Your task to perform on an android device: Open the calendar app, open the side menu, and click the "Day" option Image 0: 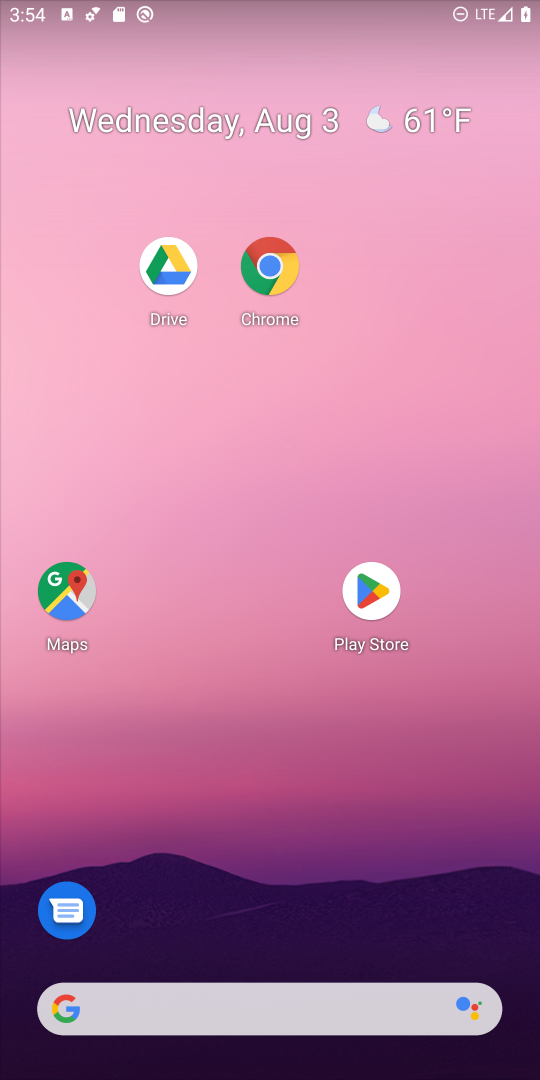
Step 0: drag from (246, 576) to (328, 112)
Your task to perform on an android device: Open the calendar app, open the side menu, and click the "Day" option Image 1: 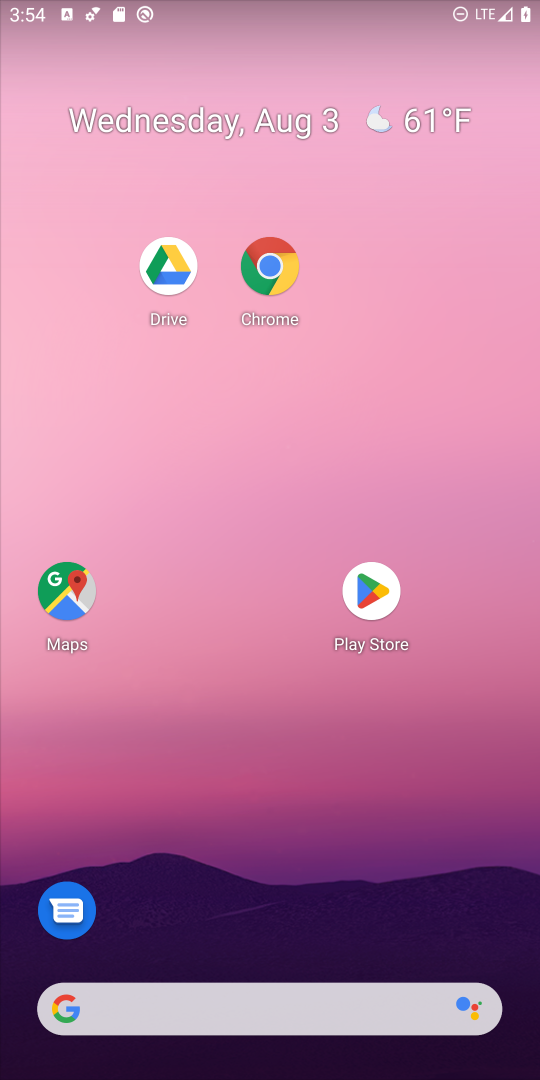
Step 1: drag from (268, 1015) to (405, 5)
Your task to perform on an android device: Open the calendar app, open the side menu, and click the "Day" option Image 2: 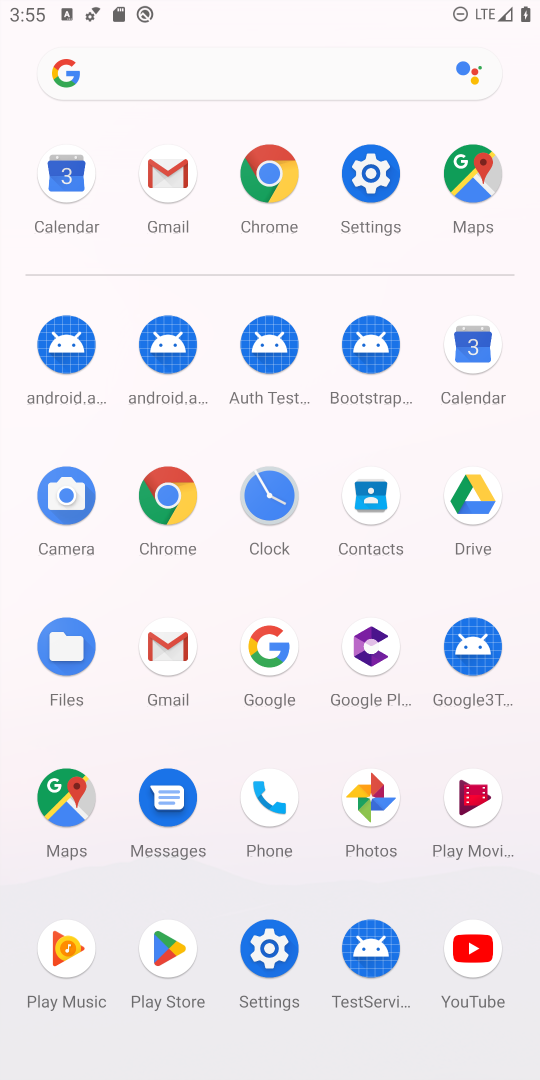
Step 2: click (476, 343)
Your task to perform on an android device: Open the calendar app, open the side menu, and click the "Day" option Image 3: 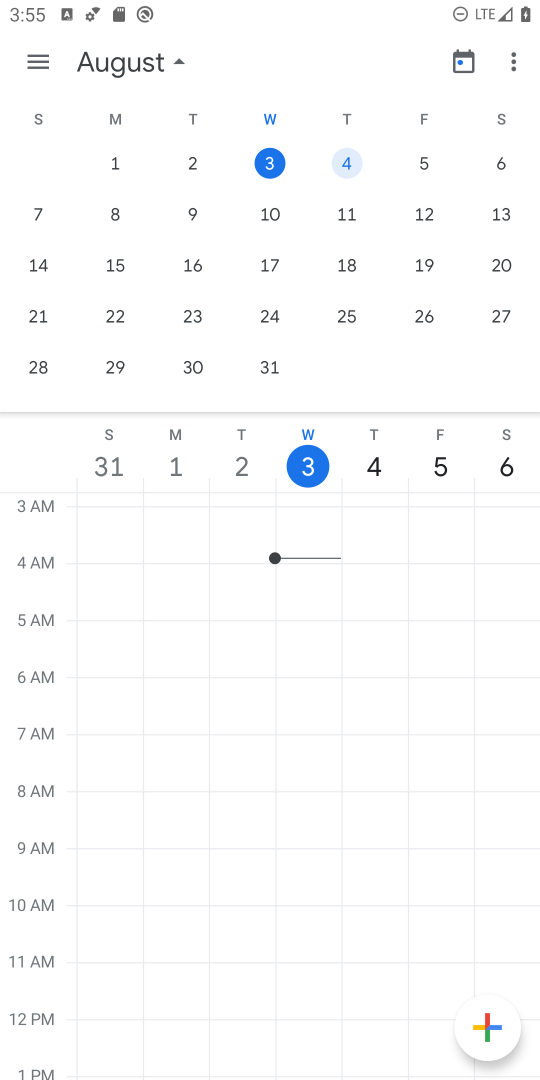
Step 3: click (45, 53)
Your task to perform on an android device: Open the calendar app, open the side menu, and click the "Day" option Image 4: 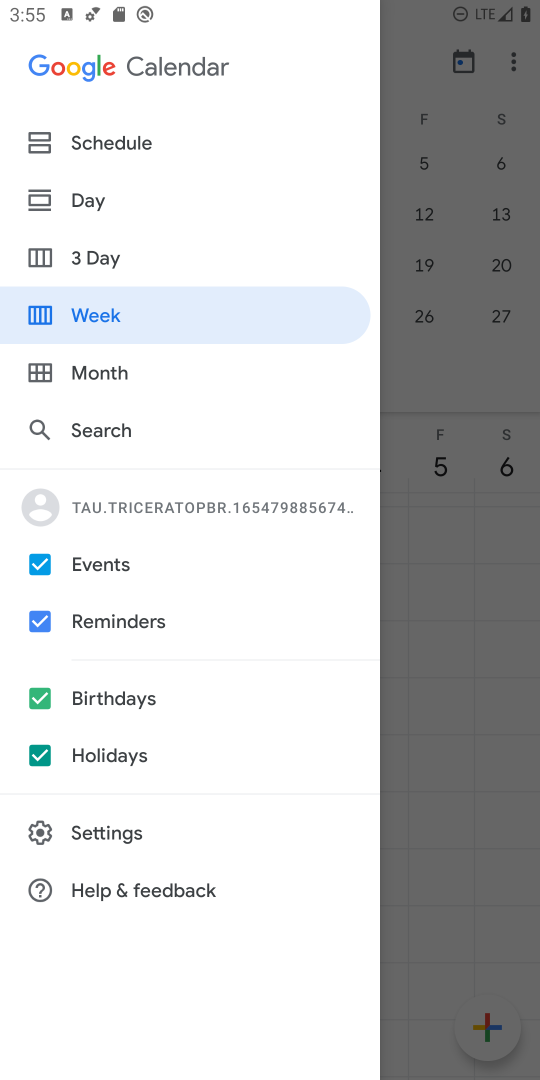
Step 4: click (105, 209)
Your task to perform on an android device: Open the calendar app, open the side menu, and click the "Day" option Image 5: 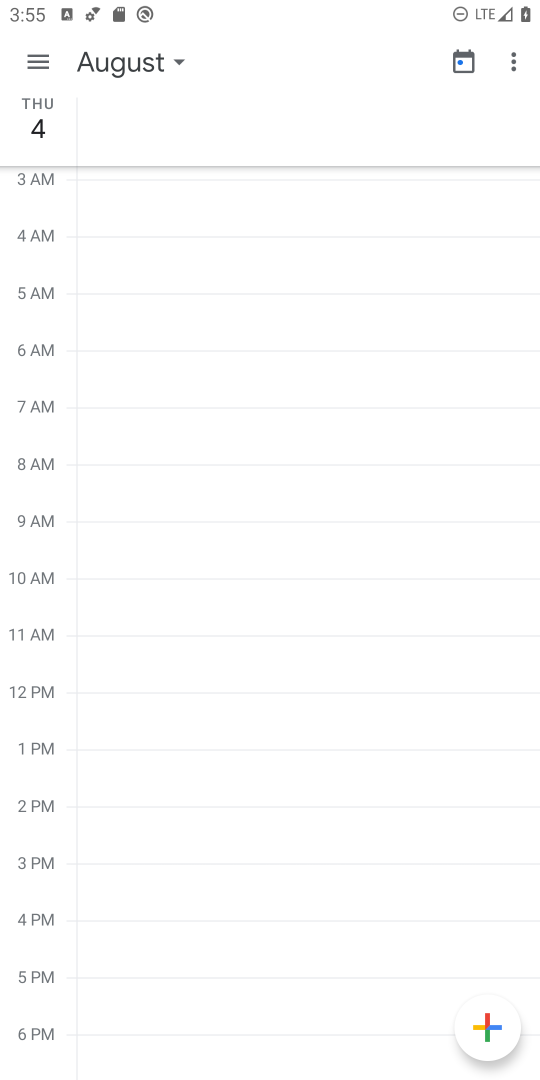
Step 5: task complete